Your task to perform on an android device: Search for Italian restaurants on Maps Image 0: 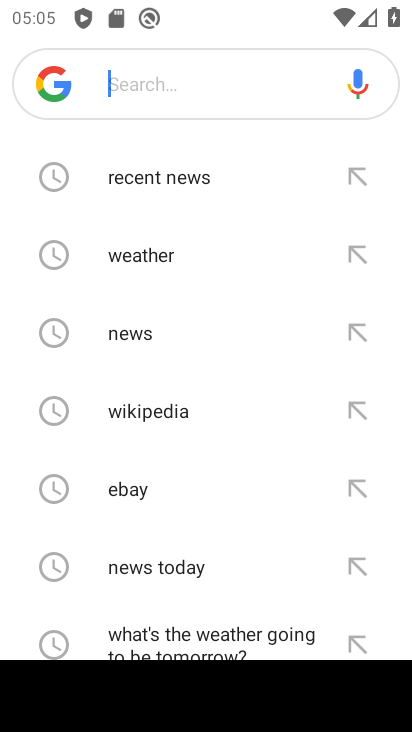
Step 0: press back button
Your task to perform on an android device: Search for Italian restaurants on Maps Image 1: 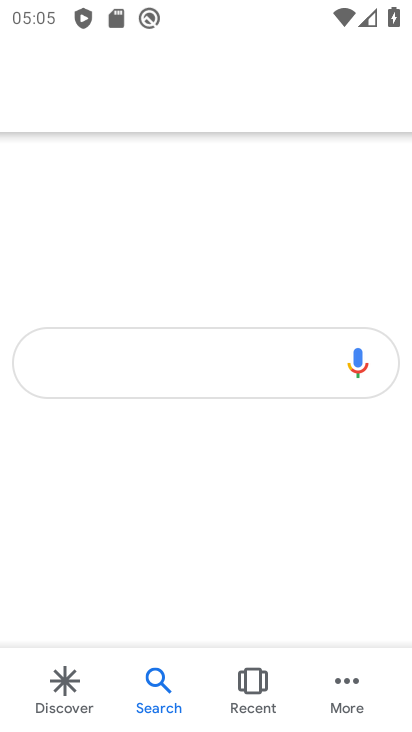
Step 1: press back button
Your task to perform on an android device: Search for Italian restaurants on Maps Image 2: 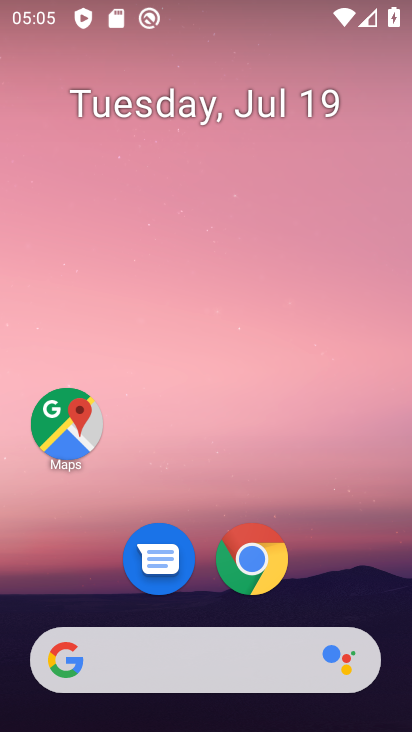
Step 2: click (47, 418)
Your task to perform on an android device: Search for Italian restaurants on Maps Image 3: 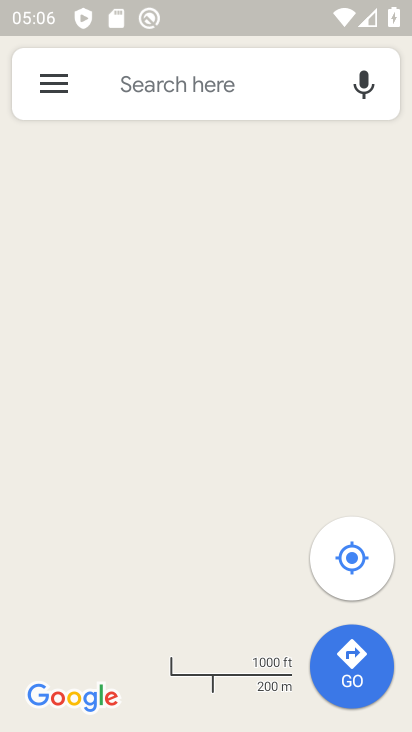
Step 3: click (261, 76)
Your task to perform on an android device: Search for Italian restaurants on Maps Image 4: 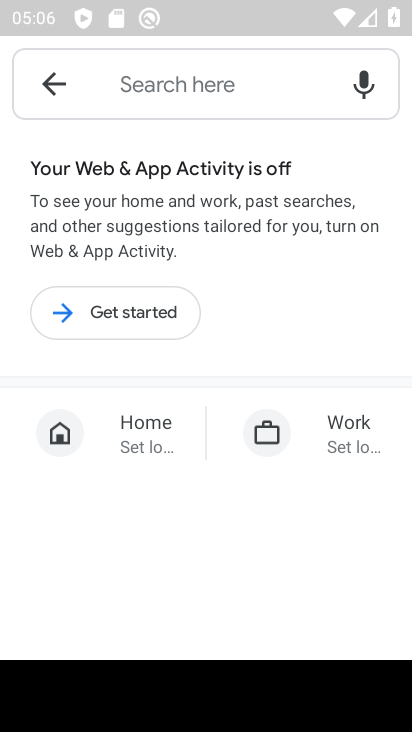
Step 4: click (135, 72)
Your task to perform on an android device: Search for Italian restaurants on Maps Image 5: 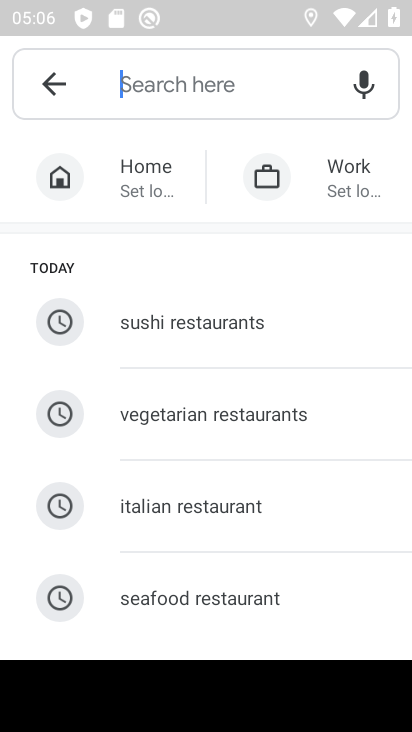
Step 5: type "italian"
Your task to perform on an android device: Search for Italian restaurants on Maps Image 6: 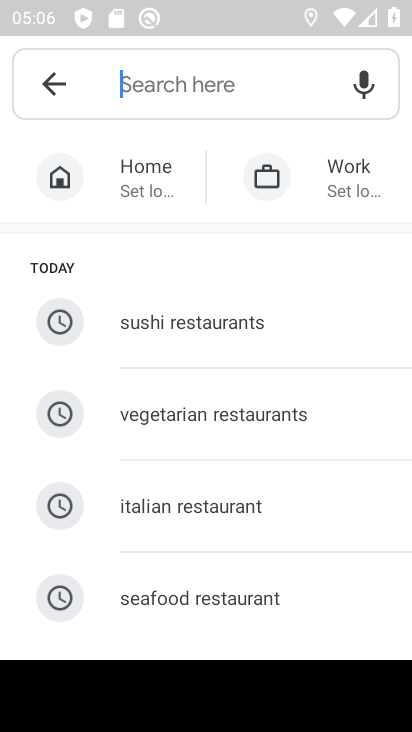
Step 6: click (234, 523)
Your task to perform on an android device: Search for Italian restaurants on Maps Image 7: 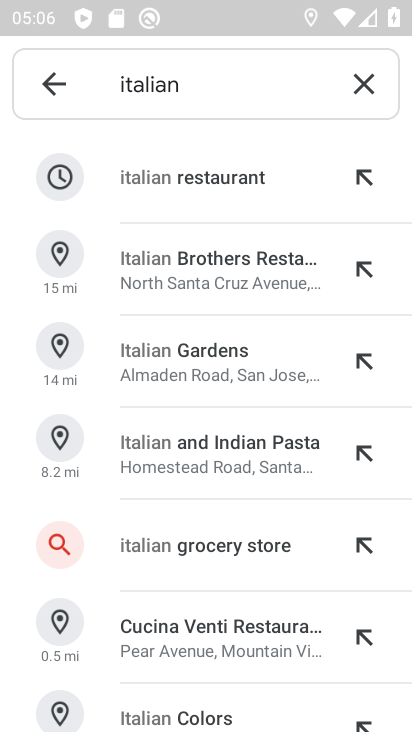
Step 7: click (147, 193)
Your task to perform on an android device: Search for Italian restaurants on Maps Image 8: 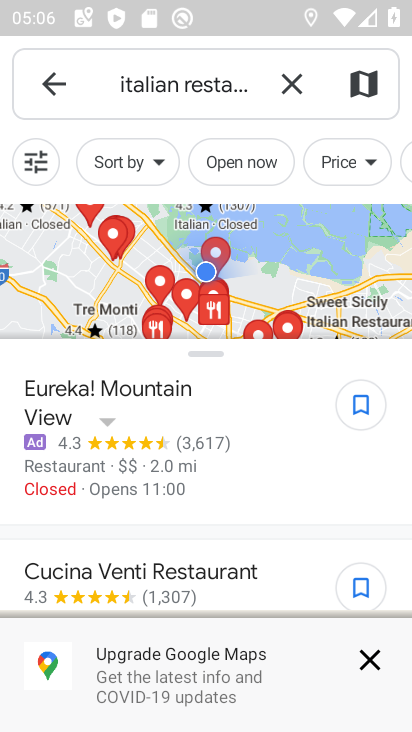
Step 8: task complete